Your task to perform on an android device: Open the Play Movies app and select the watchlist tab. Image 0: 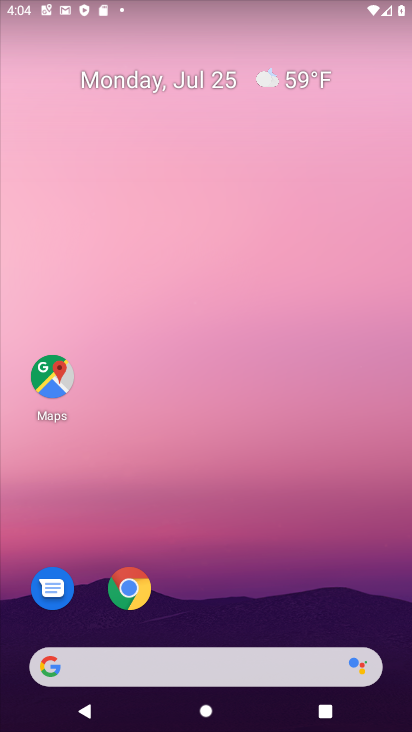
Step 0: drag from (293, 529) to (291, 85)
Your task to perform on an android device: Open the Play Movies app and select the watchlist tab. Image 1: 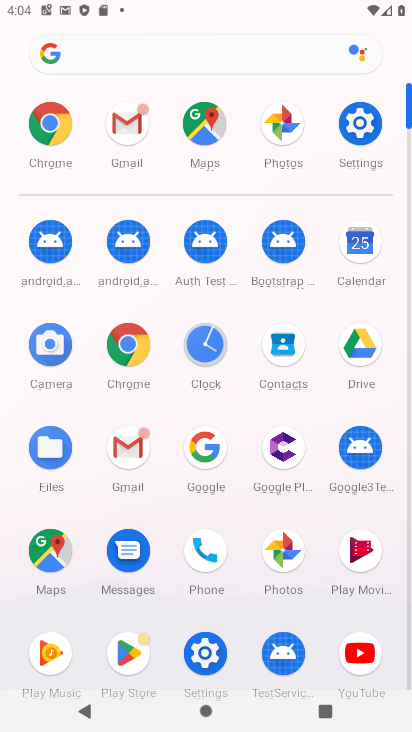
Step 1: click (357, 554)
Your task to perform on an android device: Open the Play Movies app and select the watchlist tab. Image 2: 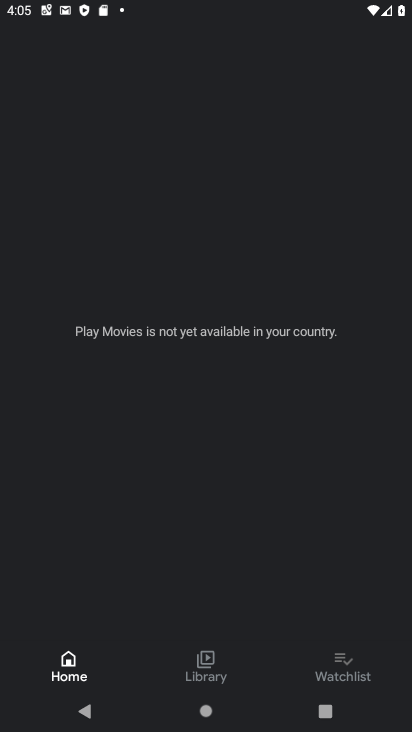
Step 2: click (345, 674)
Your task to perform on an android device: Open the Play Movies app and select the watchlist tab. Image 3: 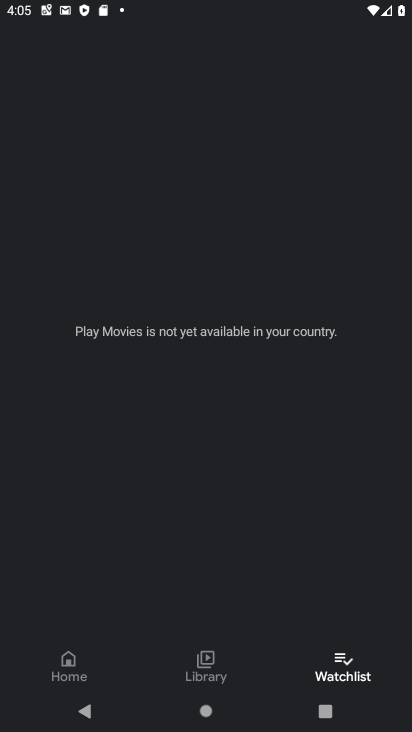
Step 3: task complete